Your task to perform on an android device: turn smart compose on in the gmail app Image 0: 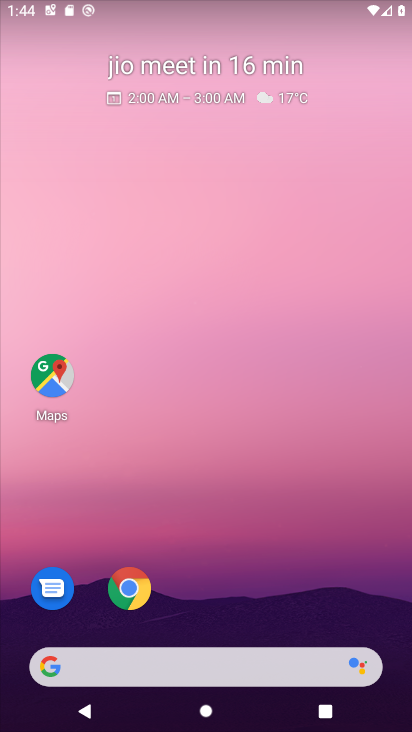
Step 0: drag from (281, 707) to (332, 156)
Your task to perform on an android device: turn smart compose on in the gmail app Image 1: 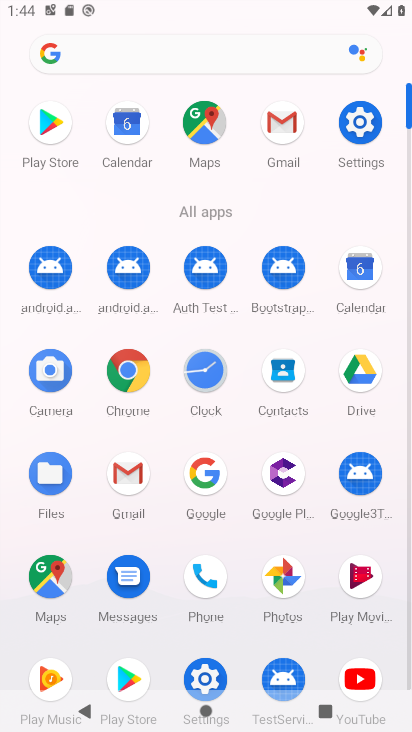
Step 1: click (141, 467)
Your task to perform on an android device: turn smart compose on in the gmail app Image 2: 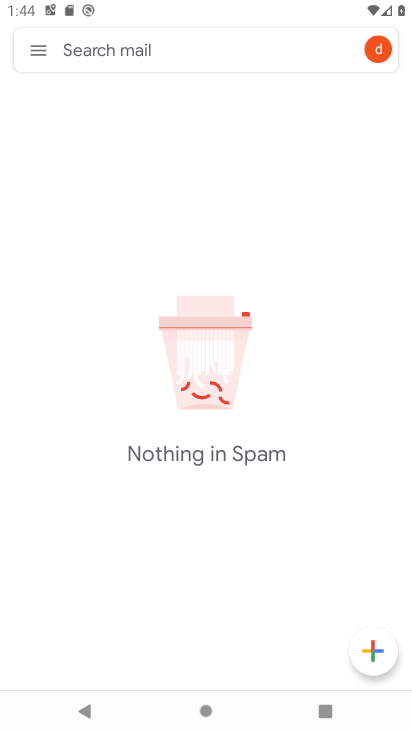
Step 2: click (44, 53)
Your task to perform on an android device: turn smart compose on in the gmail app Image 3: 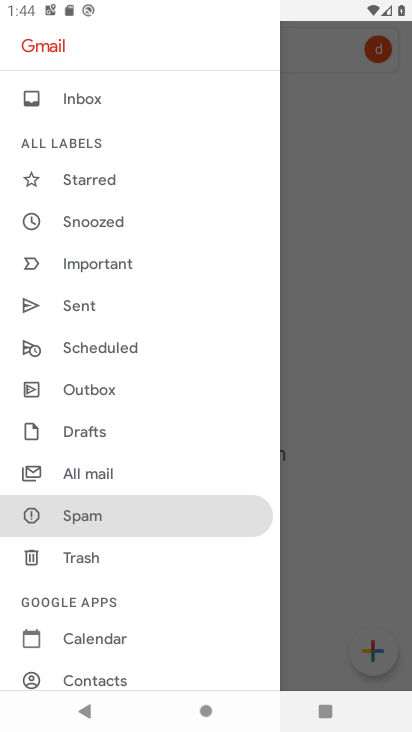
Step 3: drag from (130, 646) to (130, 225)
Your task to perform on an android device: turn smart compose on in the gmail app Image 4: 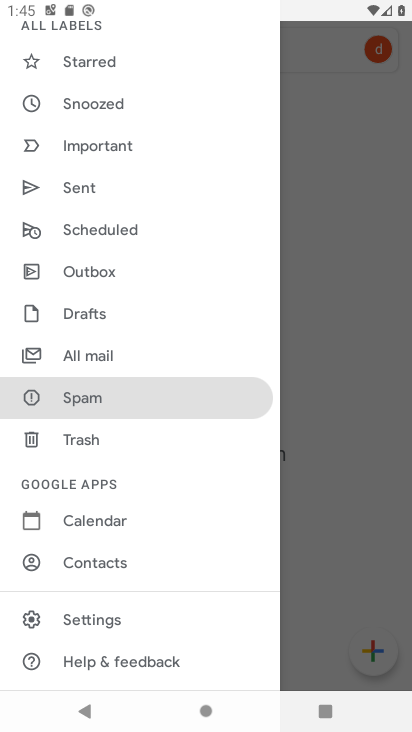
Step 4: click (122, 617)
Your task to perform on an android device: turn smart compose on in the gmail app Image 5: 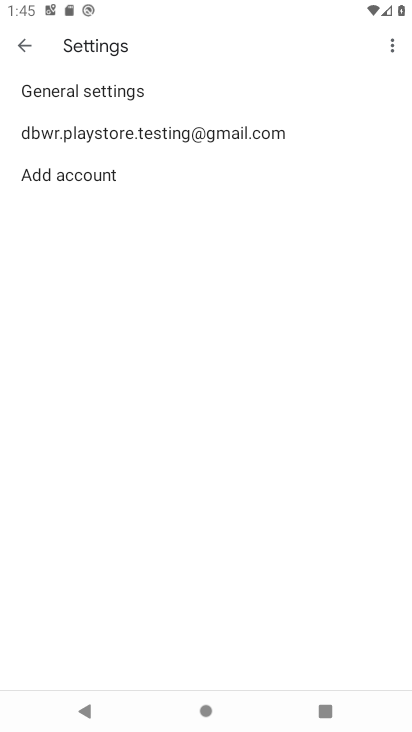
Step 5: click (163, 138)
Your task to perform on an android device: turn smart compose on in the gmail app Image 6: 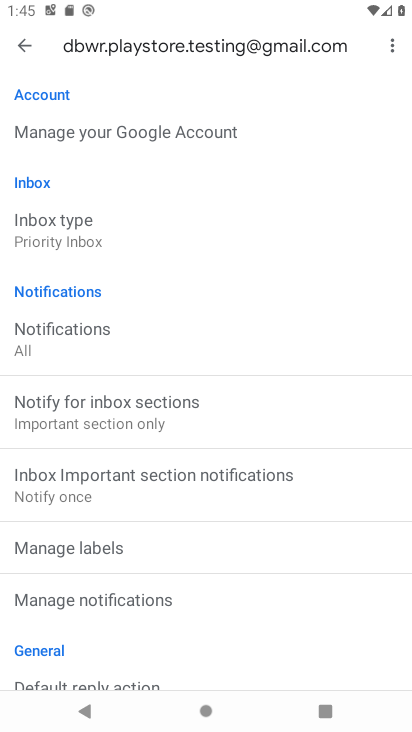
Step 6: task complete